Your task to perform on an android device: Do I have any events this weekend? Image 0: 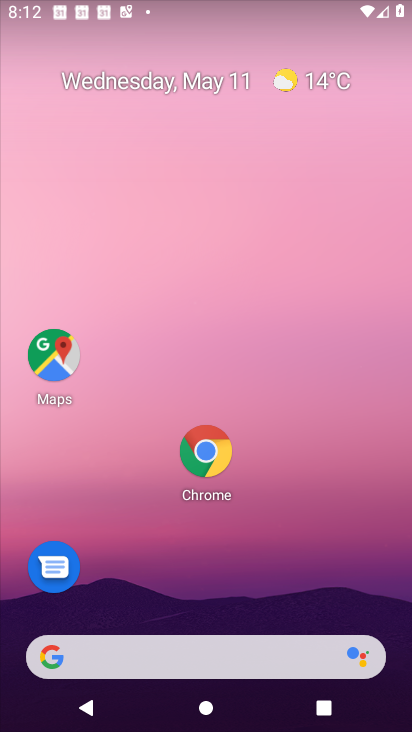
Step 0: drag from (173, 656) to (329, 236)
Your task to perform on an android device: Do I have any events this weekend? Image 1: 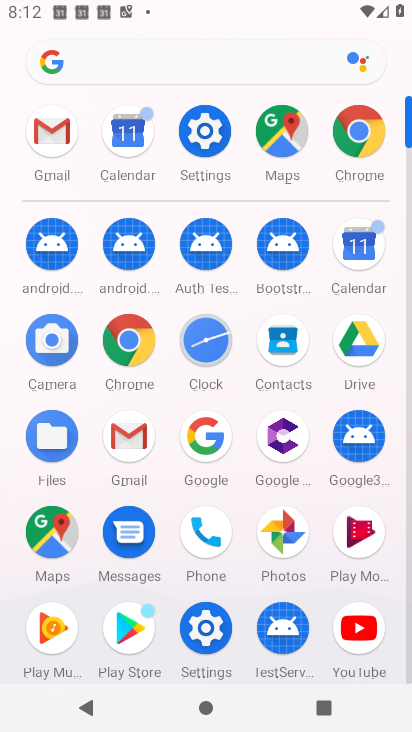
Step 1: click (360, 249)
Your task to perform on an android device: Do I have any events this weekend? Image 2: 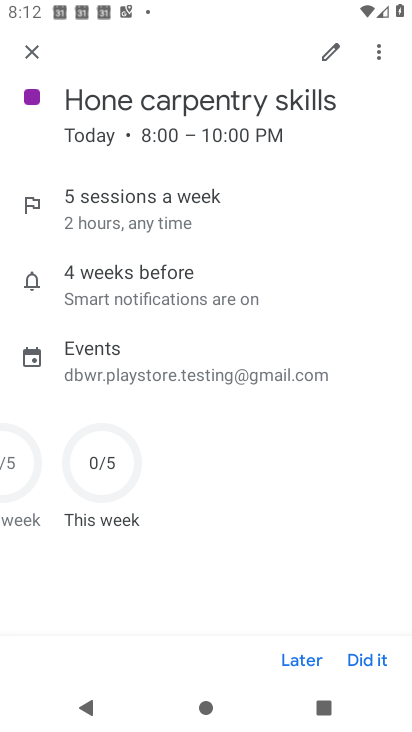
Step 2: click (30, 49)
Your task to perform on an android device: Do I have any events this weekend? Image 3: 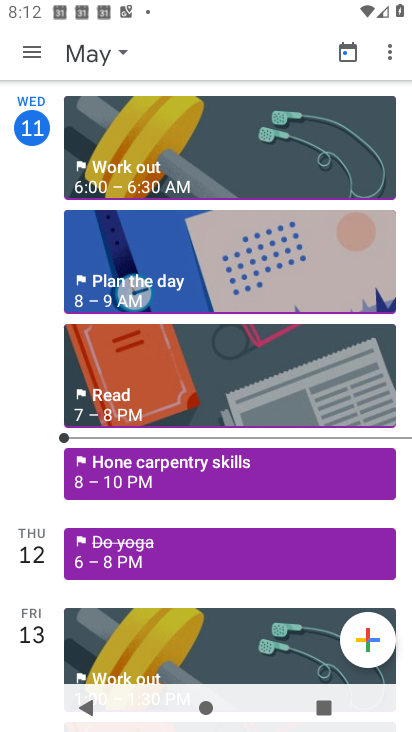
Step 3: click (97, 58)
Your task to perform on an android device: Do I have any events this weekend? Image 4: 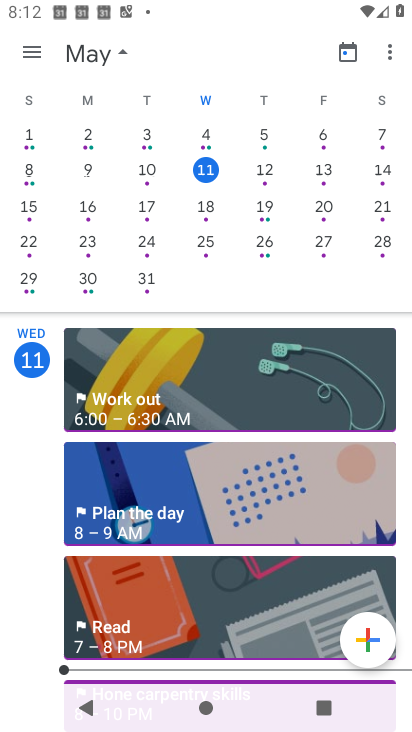
Step 4: click (383, 175)
Your task to perform on an android device: Do I have any events this weekend? Image 5: 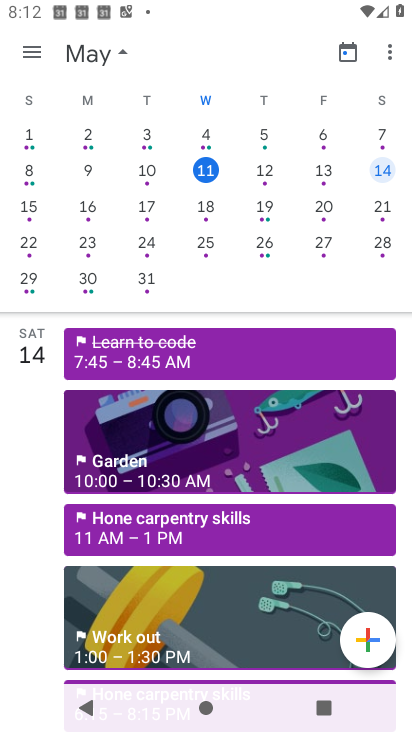
Step 5: click (36, 45)
Your task to perform on an android device: Do I have any events this weekend? Image 6: 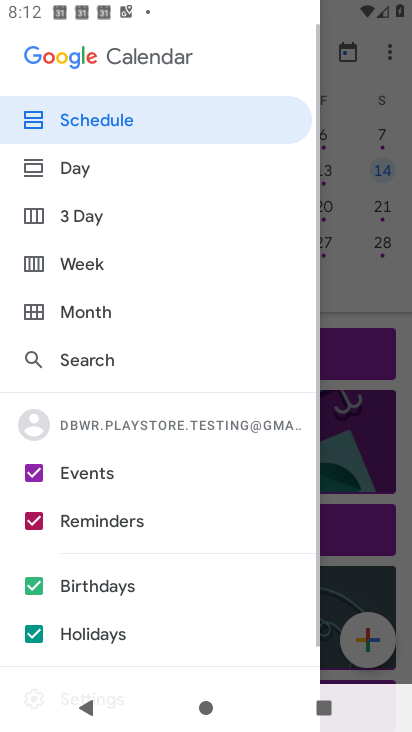
Step 6: click (94, 128)
Your task to perform on an android device: Do I have any events this weekend? Image 7: 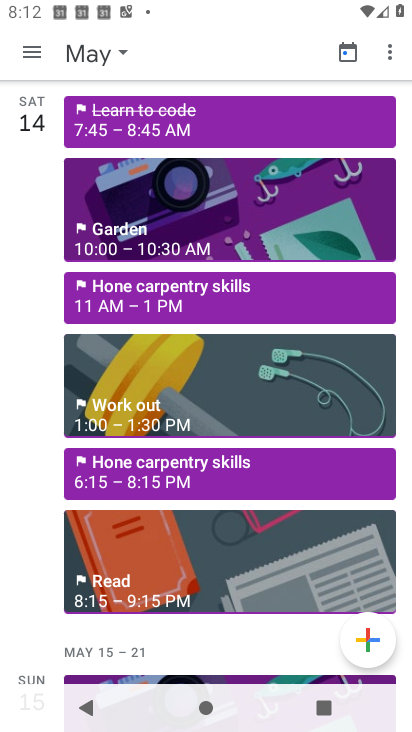
Step 7: click (154, 233)
Your task to perform on an android device: Do I have any events this weekend? Image 8: 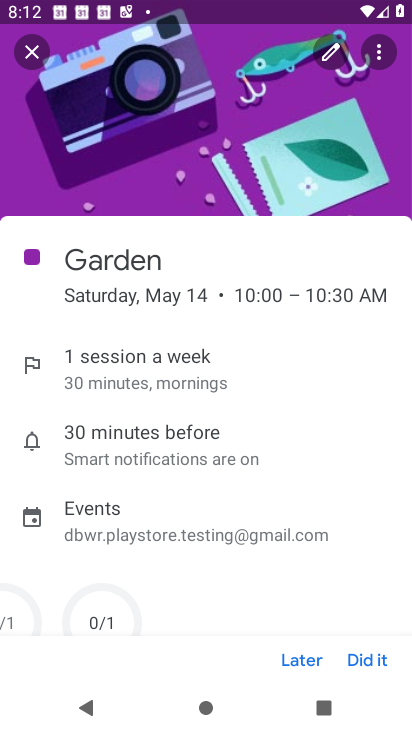
Step 8: task complete